Your task to perform on an android device: snooze an email in the gmail app Image 0: 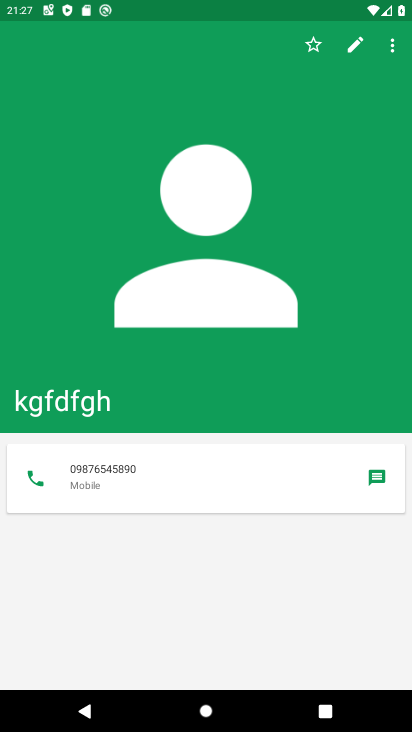
Step 0: press home button
Your task to perform on an android device: snooze an email in the gmail app Image 1: 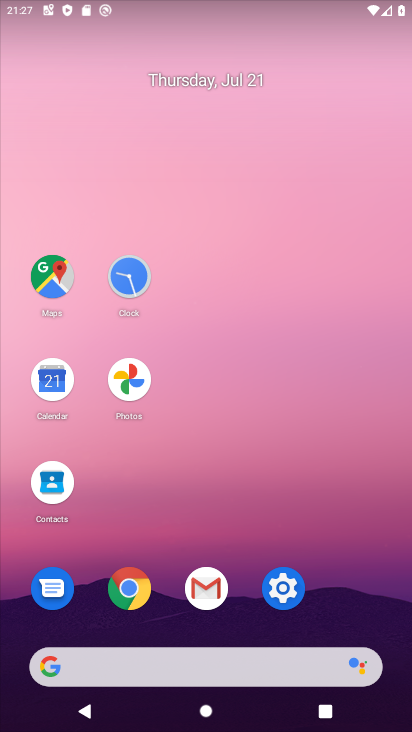
Step 1: click (202, 584)
Your task to perform on an android device: snooze an email in the gmail app Image 2: 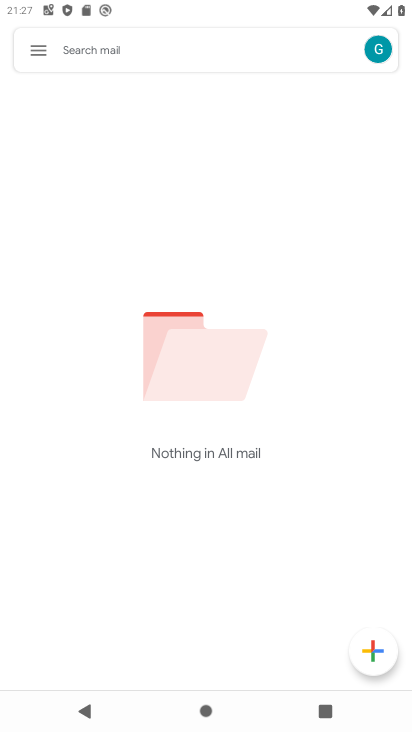
Step 2: click (39, 50)
Your task to perform on an android device: snooze an email in the gmail app Image 3: 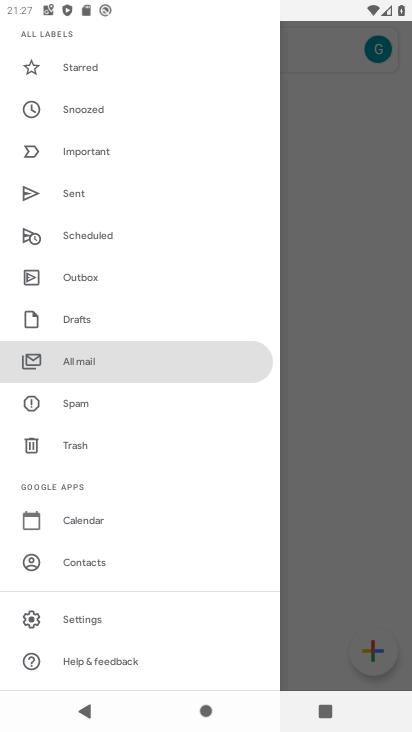
Step 3: click (71, 112)
Your task to perform on an android device: snooze an email in the gmail app Image 4: 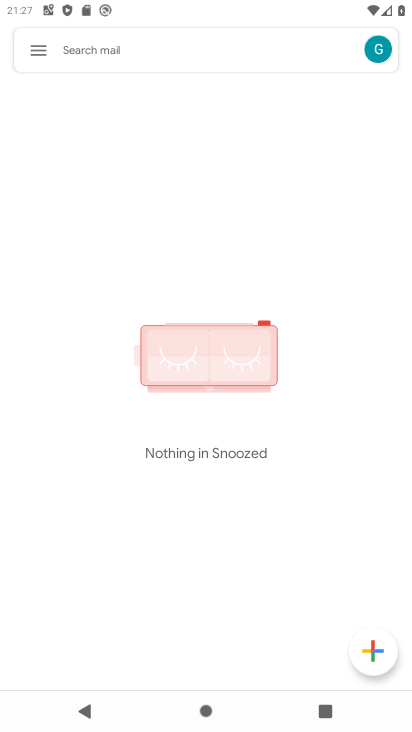
Step 4: click (34, 52)
Your task to perform on an android device: snooze an email in the gmail app Image 5: 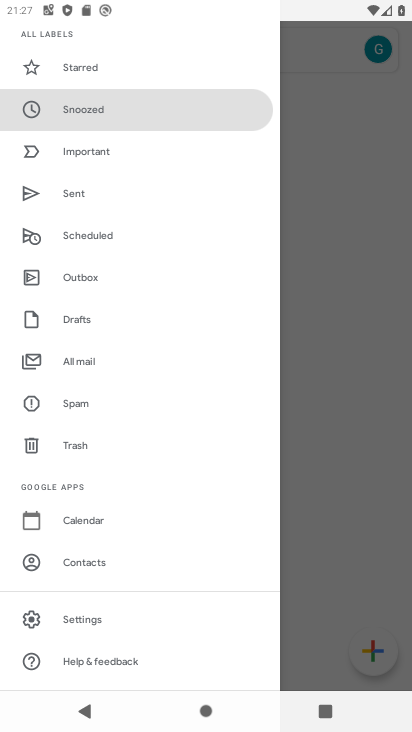
Step 5: click (86, 361)
Your task to perform on an android device: snooze an email in the gmail app Image 6: 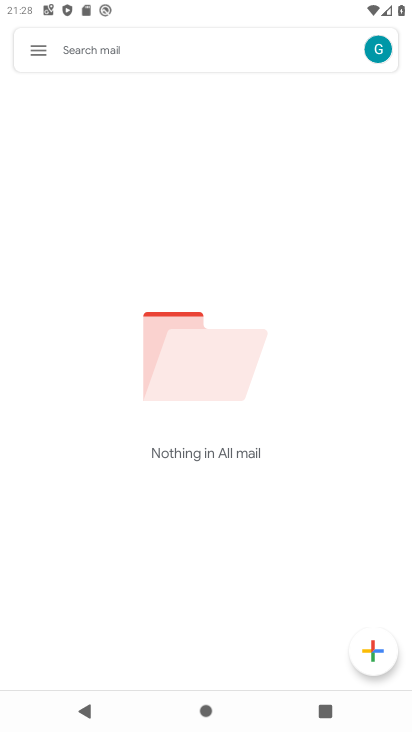
Step 6: task complete